Your task to perform on an android device: Empty the shopping cart on walmart. Image 0: 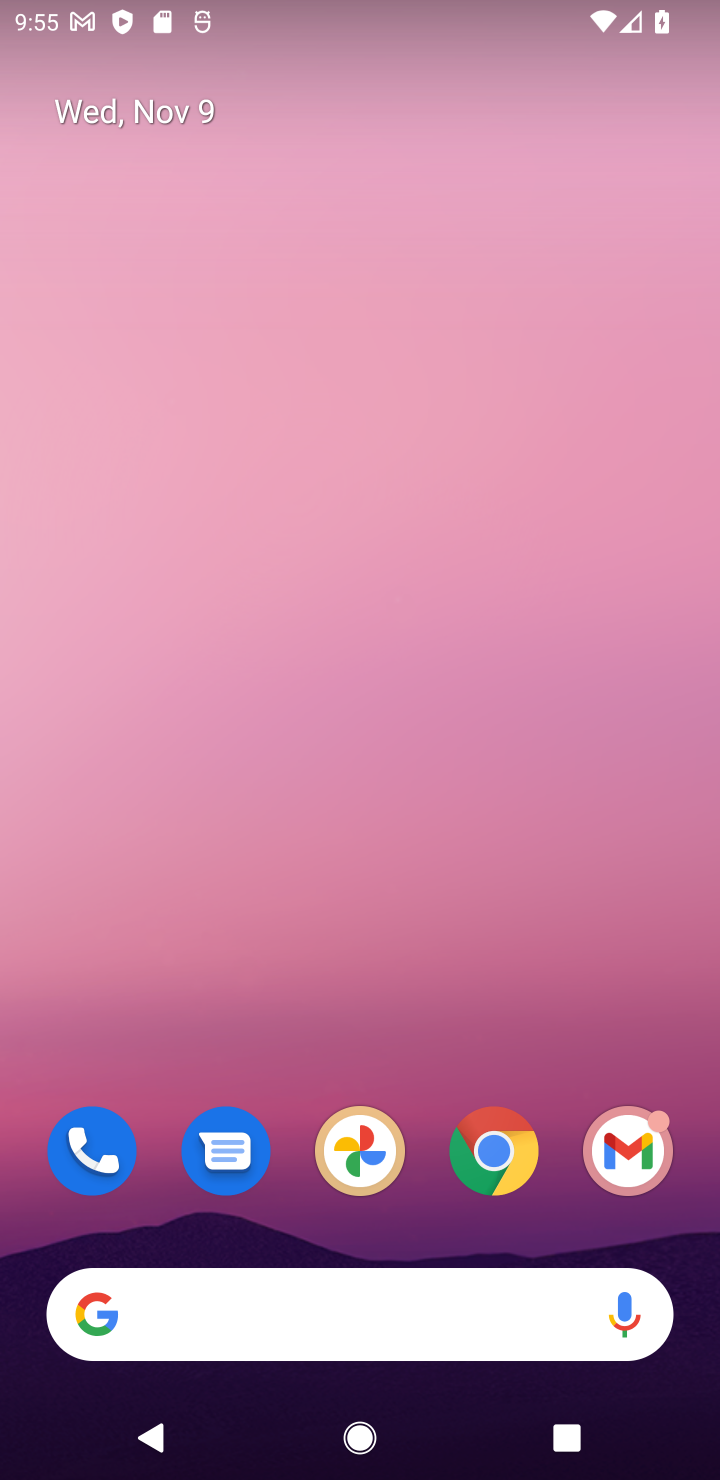
Step 0: click (491, 1151)
Your task to perform on an android device: Empty the shopping cart on walmart. Image 1: 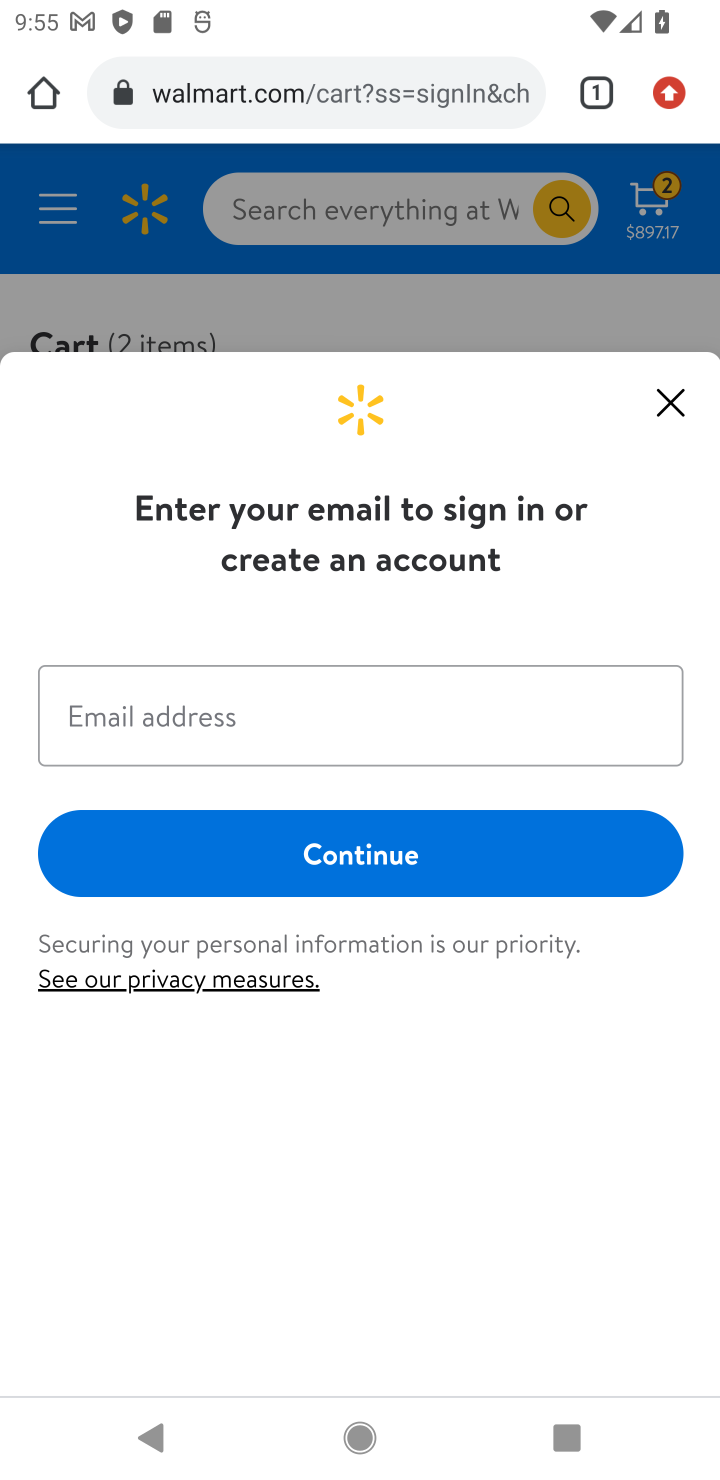
Step 1: click (670, 409)
Your task to perform on an android device: Empty the shopping cart on walmart. Image 2: 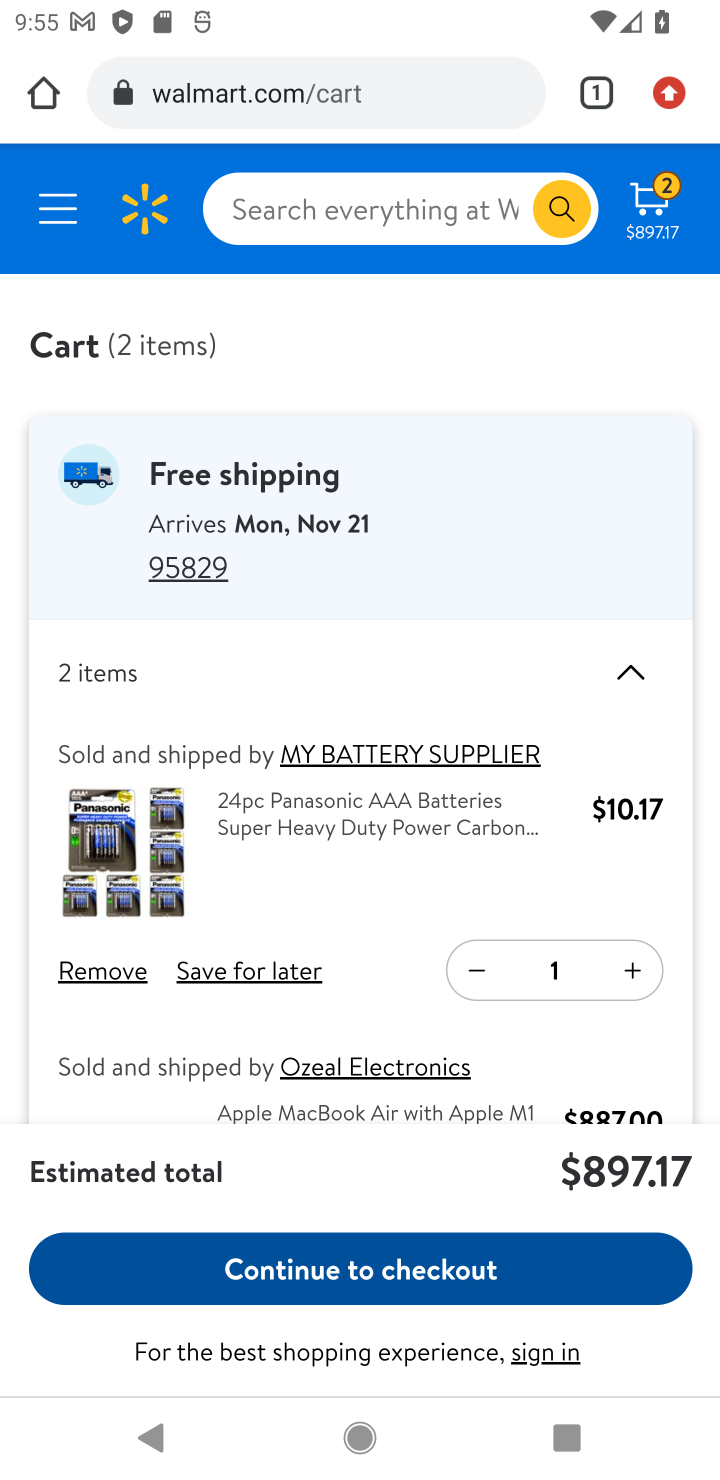
Step 2: click (624, 201)
Your task to perform on an android device: Empty the shopping cart on walmart. Image 3: 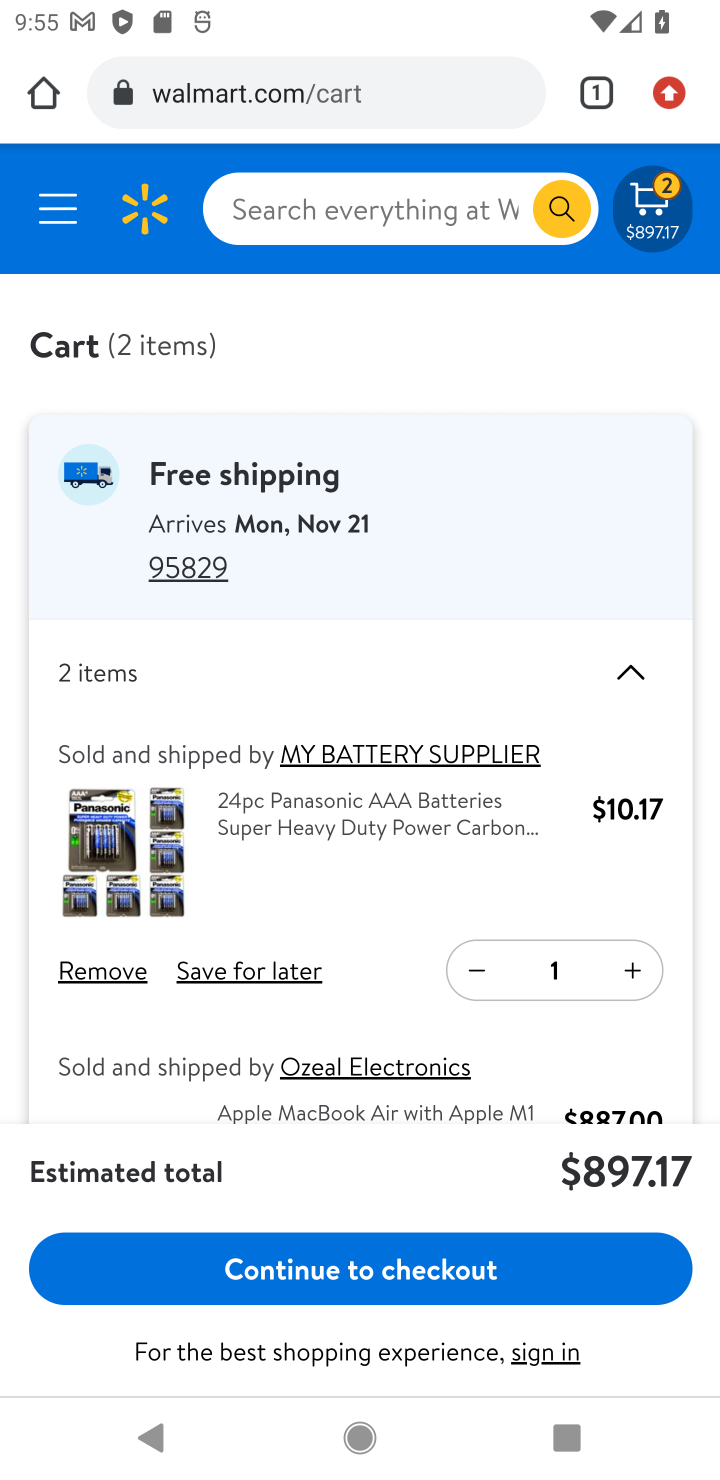
Step 3: click (97, 971)
Your task to perform on an android device: Empty the shopping cart on walmart. Image 4: 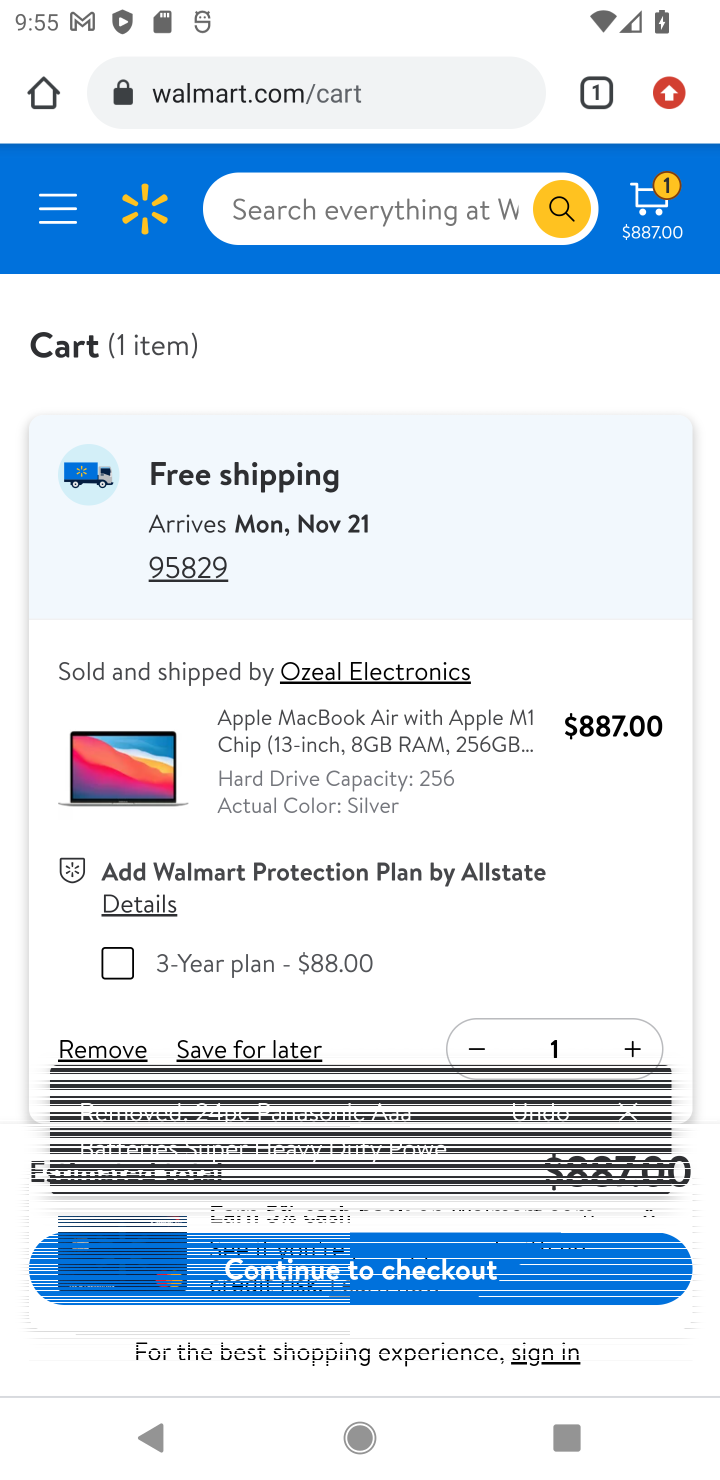
Step 4: click (103, 1043)
Your task to perform on an android device: Empty the shopping cart on walmart. Image 5: 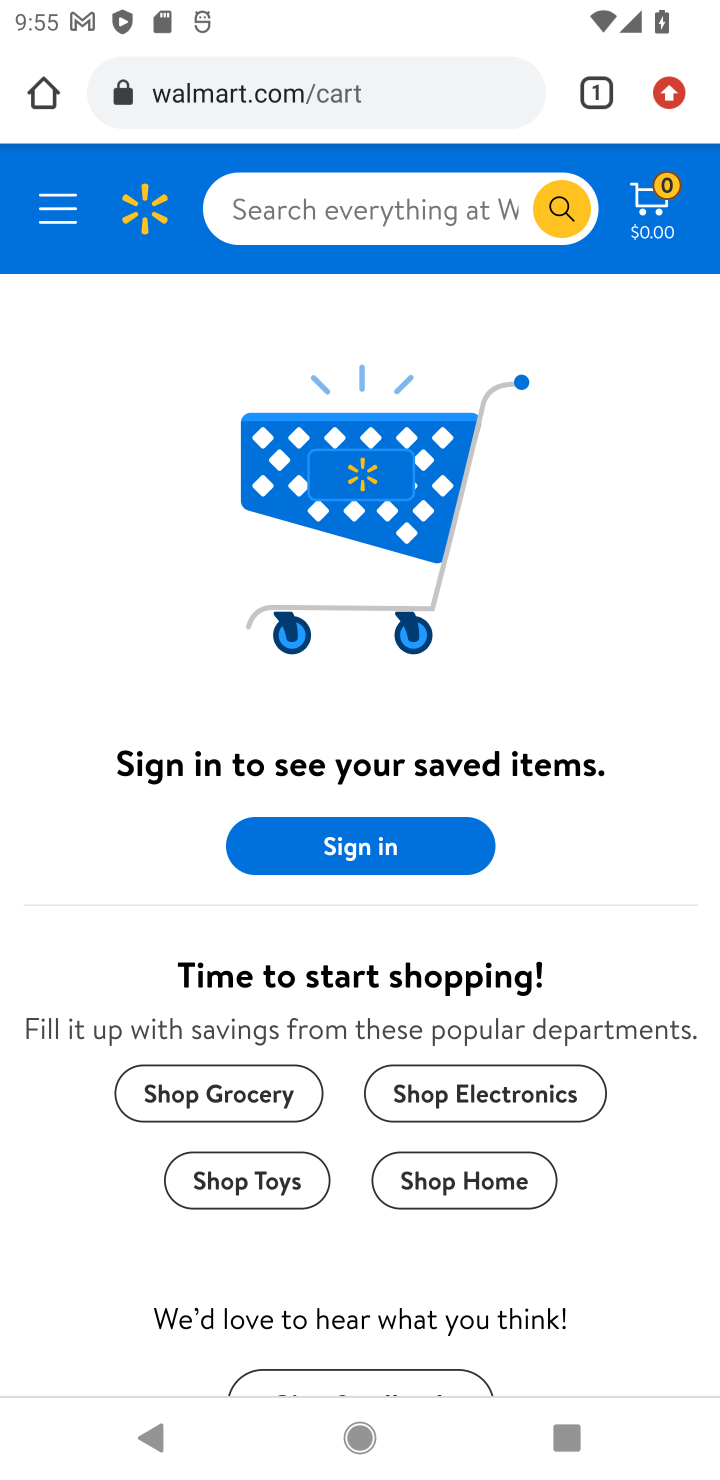
Step 5: task complete